Your task to perform on an android device: Search for Italian restaurants on Maps Image 0: 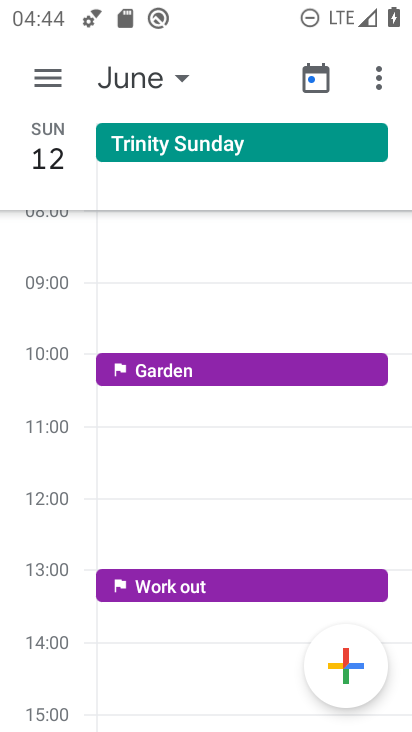
Step 0: press home button
Your task to perform on an android device: Search for Italian restaurants on Maps Image 1: 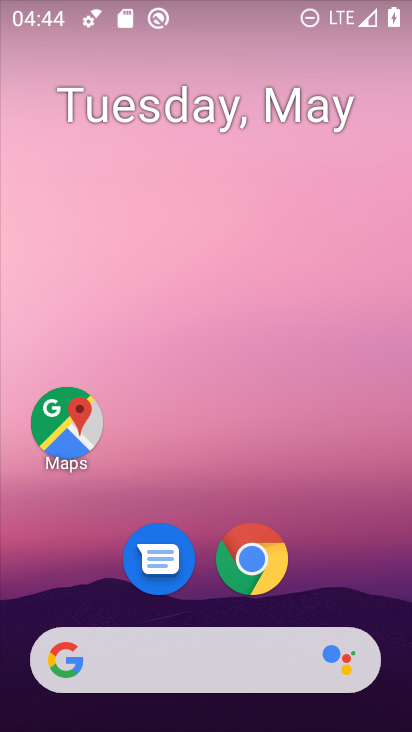
Step 1: drag from (252, 648) to (247, 180)
Your task to perform on an android device: Search for Italian restaurants on Maps Image 2: 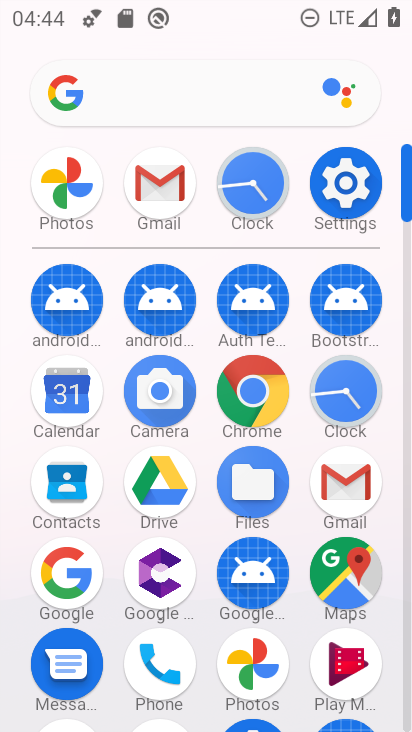
Step 2: click (342, 580)
Your task to perform on an android device: Search for Italian restaurants on Maps Image 3: 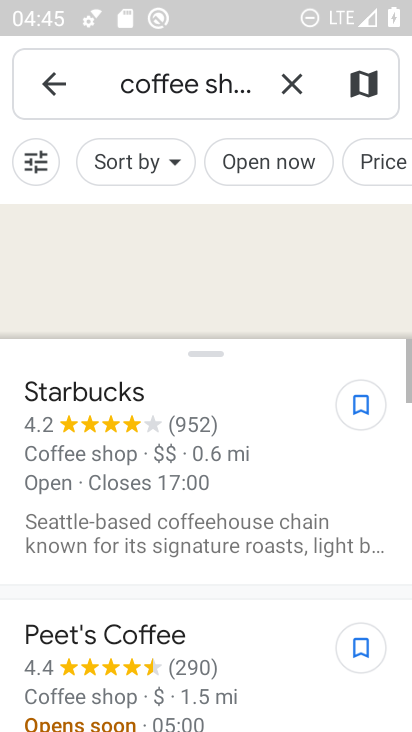
Step 3: click (294, 76)
Your task to perform on an android device: Search for Italian restaurants on Maps Image 4: 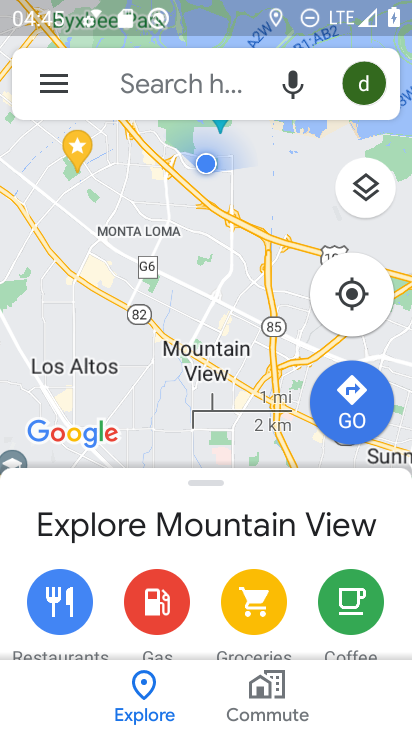
Step 4: click (178, 78)
Your task to perform on an android device: Search for Italian restaurants on Maps Image 5: 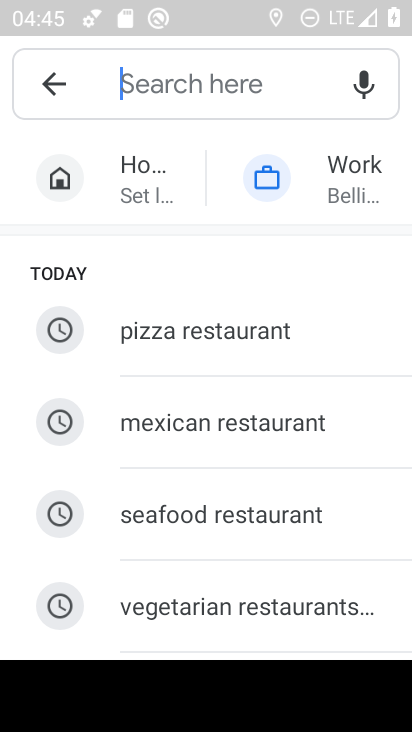
Step 5: type "Italian restaurants"
Your task to perform on an android device: Search for Italian restaurants on Maps Image 6: 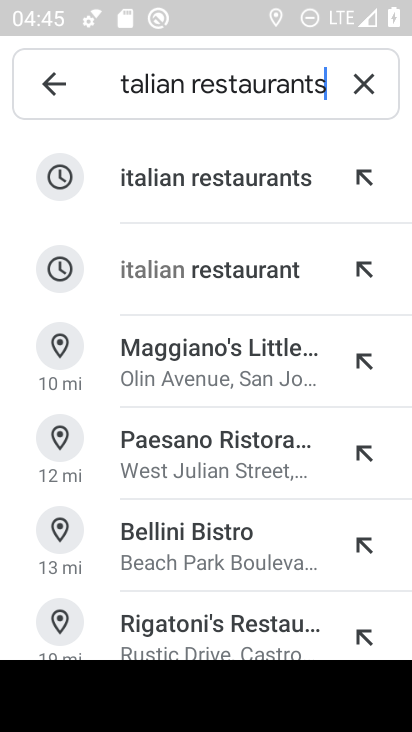
Step 6: click (181, 174)
Your task to perform on an android device: Search for Italian restaurants on Maps Image 7: 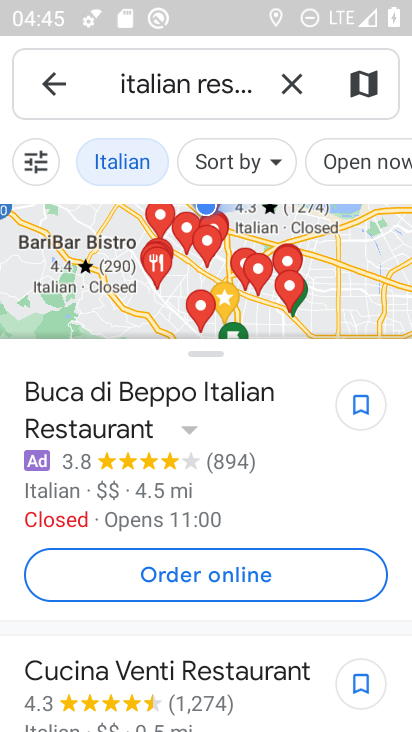
Step 7: task complete